Your task to perform on an android device: turn on sleep mode Image 0: 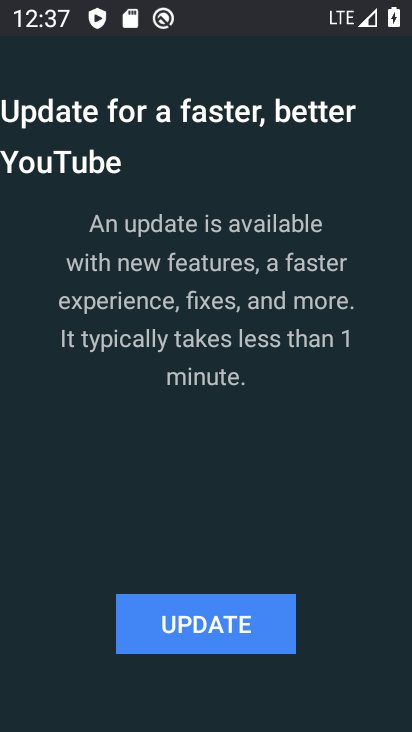
Step 0: press home button
Your task to perform on an android device: turn on sleep mode Image 1: 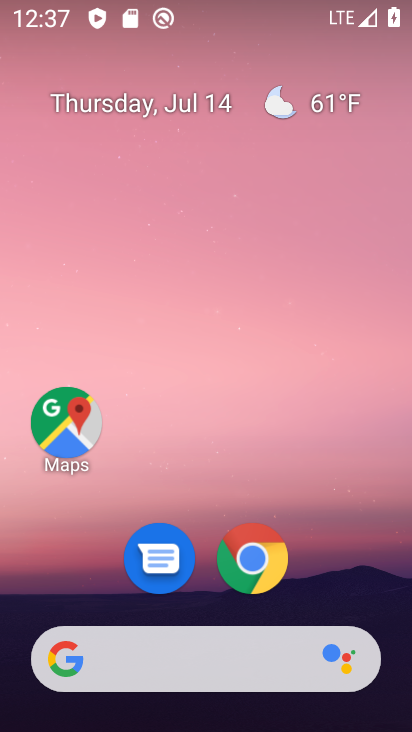
Step 1: drag from (138, 471) to (172, 105)
Your task to perform on an android device: turn on sleep mode Image 2: 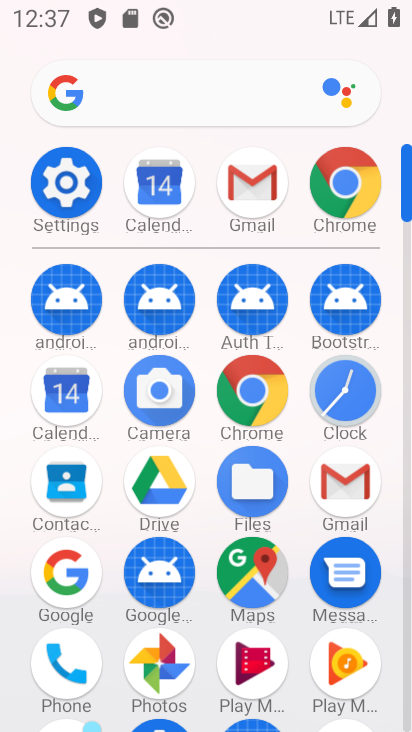
Step 2: click (63, 186)
Your task to perform on an android device: turn on sleep mode Image 3: 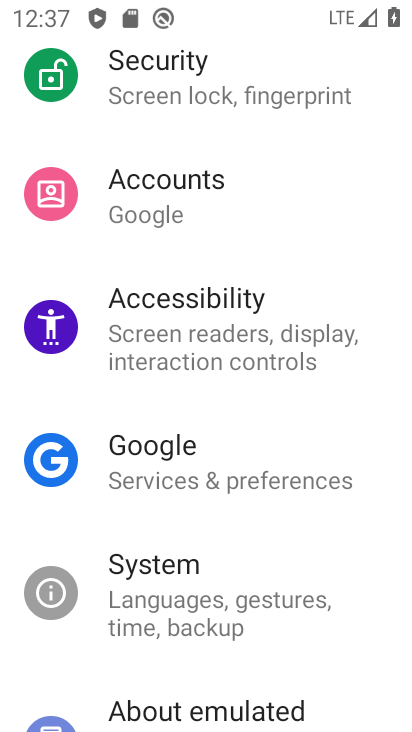
Step 3: drag from (191, 179) to (192, 725)
Your task to perform on an android device: turn on sleep mode Image 4: 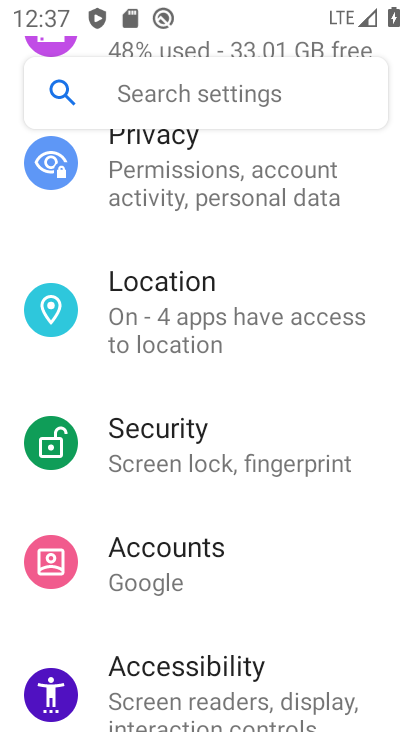
Step 4: click (170, 95)
Your task to perform on an android device: turn on sleep mode Image 5: 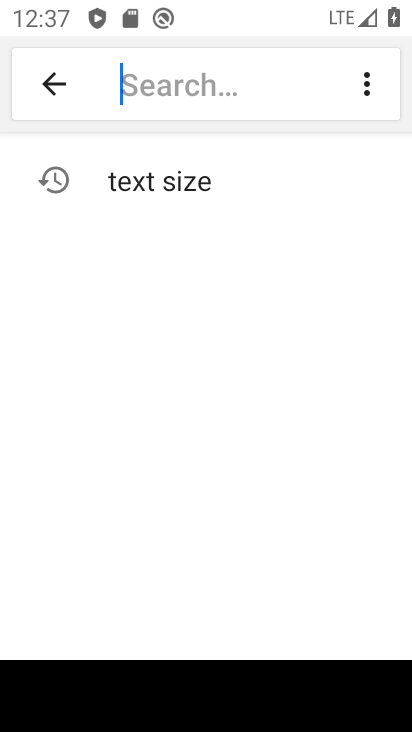
Step 5: type "sleep mode"
Your task to perform on an android device: turn on sleep mode Image 6: 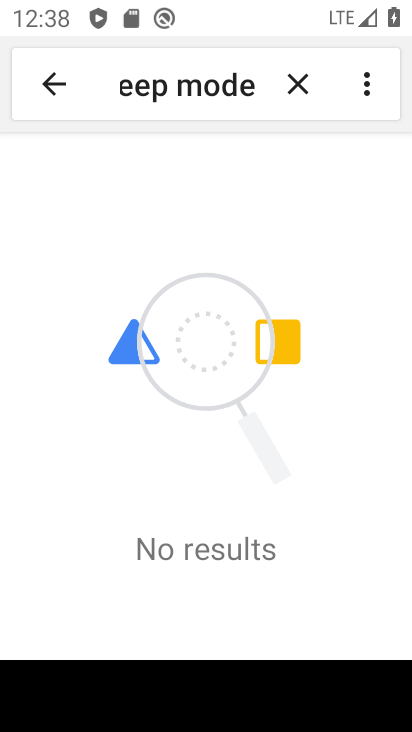
Step 6: task complete